Your task to perform on an android device: Go to accessibility settings Image 0: 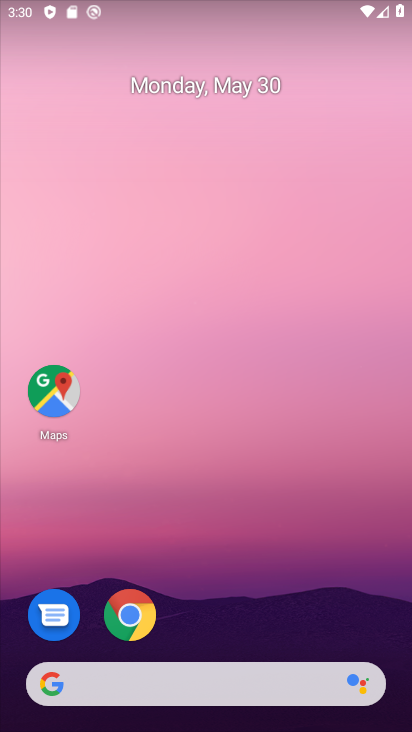
Step 0: drag from (272, 602) to (259, 100)
Your task to perform on an android device: Go to accessibility settings Image 1: 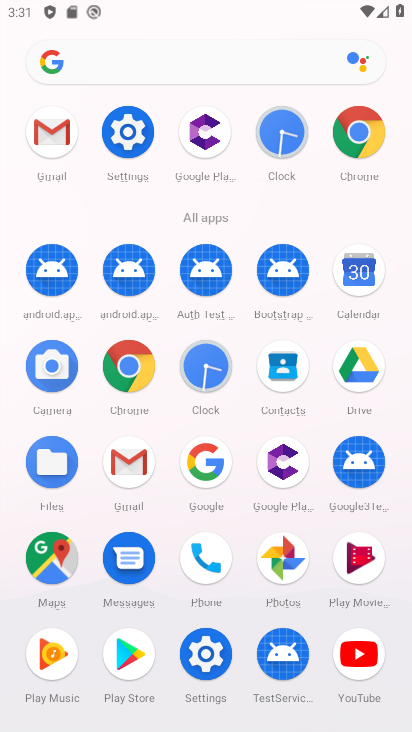
Step 1: click (129, 132)
Your task to perform on an android device: Go to accessibility settings Image 2: 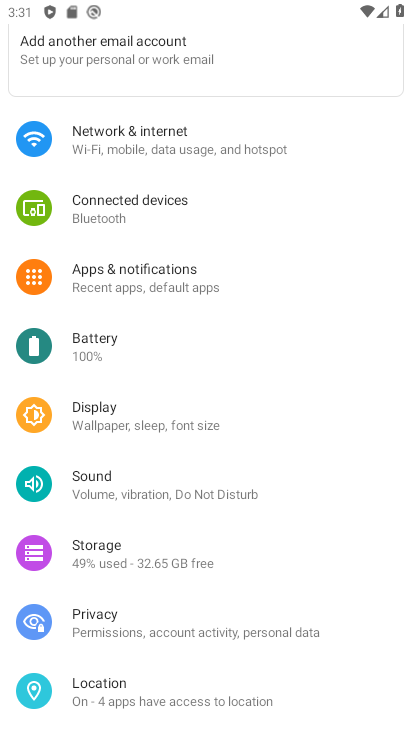
Step 2: drag from (136, 601) to (152, 474)
Your task to perform on an android device: Go to accessibility settings Image 3: 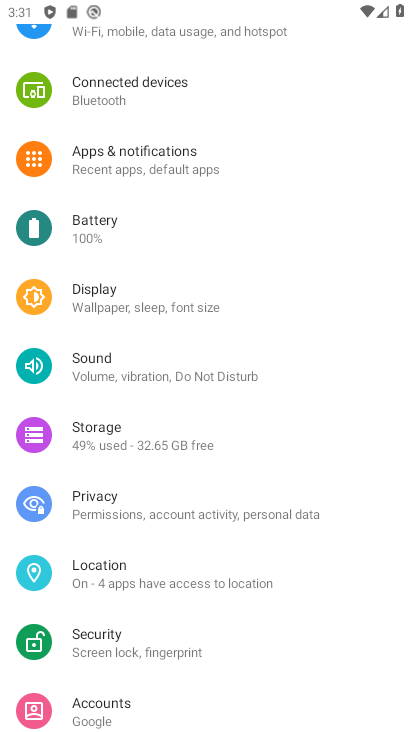
Step 3: drag from (139, 616) to (176, 532)
Your task to perform on an android device: Go to accessibility settings Image 4: 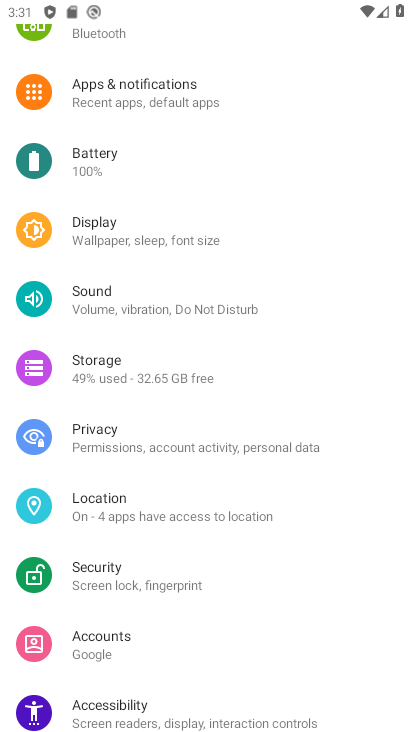
Step 4: drag from (150, 651) to (208, 513)
Your task to perform on an android device: Go to accessibility settings Image 5: 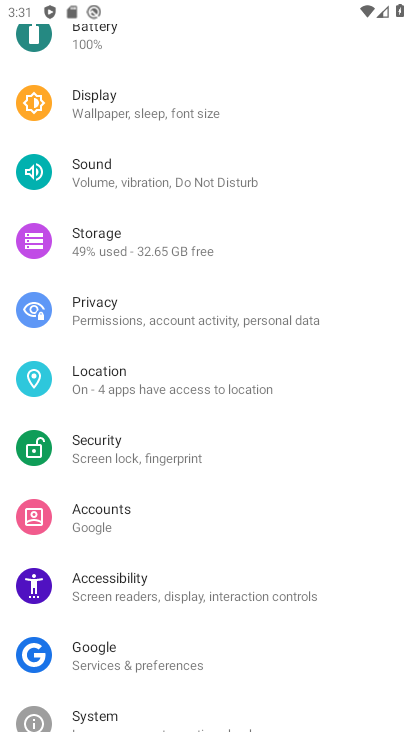
Step 5: click (172, 596)
Your task to perform on an android device: Go to accessibility settings Image 6: 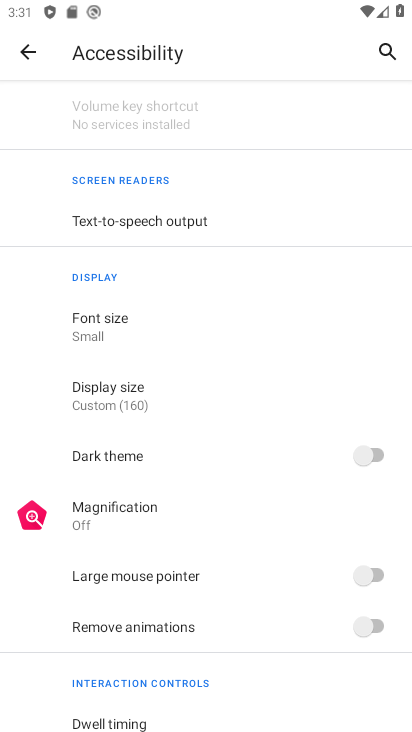
Step 6: task complete